Your task to perform on an android device: Check the weather Image 0: 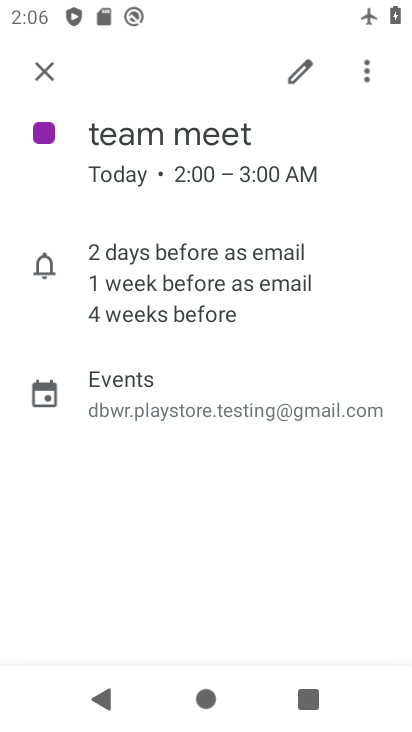
Step 0: press home button
Your task to perform on an android device: Check the weather Image 1: 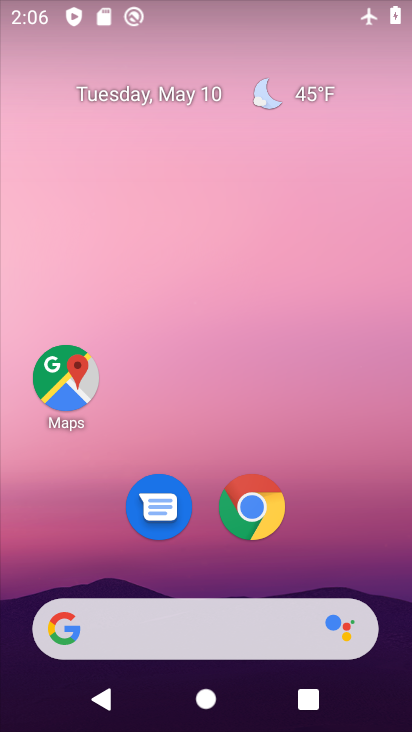
Step 1: click (248, 526)
Your task to perform on an android device: Check the weather Image 2: 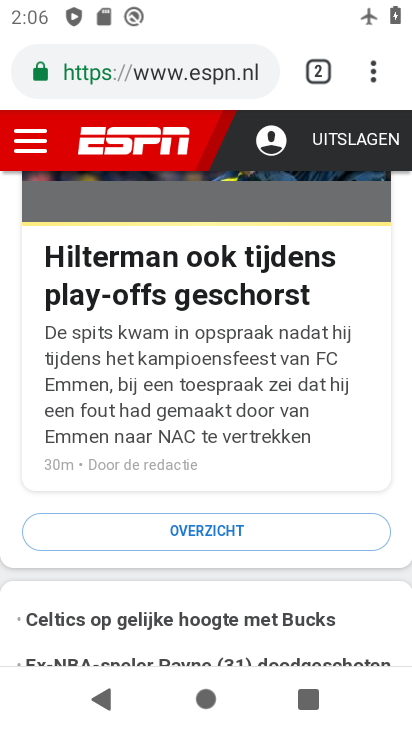
Step 2: click (314, 80)
Your task to perform on an android device: Check the weather Image 3: 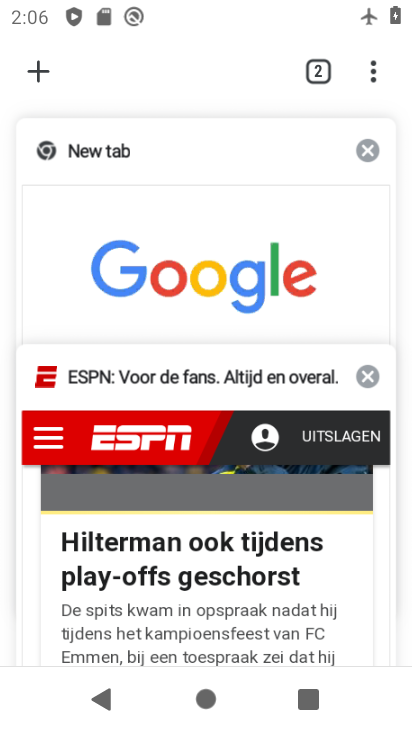
Step 3: click (35, 61)
Your task to perform on an android device: Check the weather Image 4: 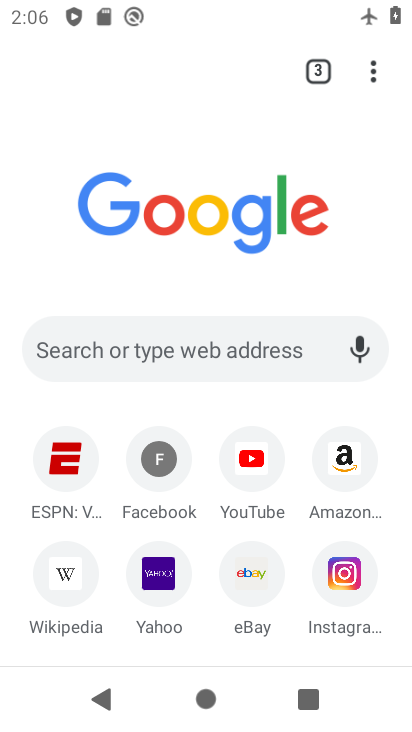
Step 4: click (154, 352)
Your task to perform on an android device: Check the weather Image 5: 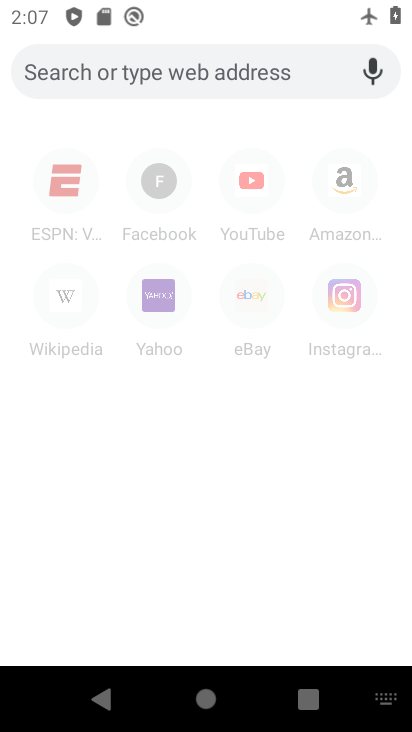
Step 5: type "weather"
Your task to perform on an android device: Check the weather Image 6: 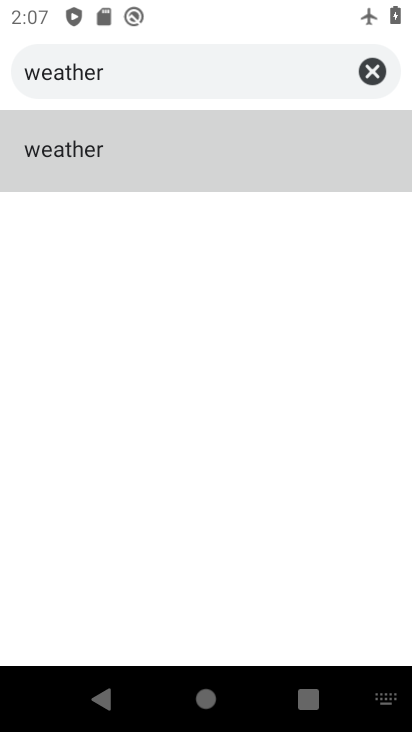
Step 6: click (50, 150)
Your task to perform on an android device: Check the weather Image 7: 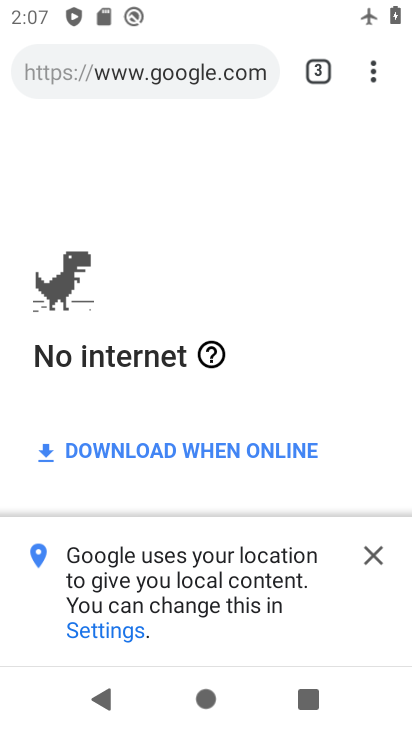
Step 7: task complete